Your task to perform on an android device: open app "Truecaller" Image 0: 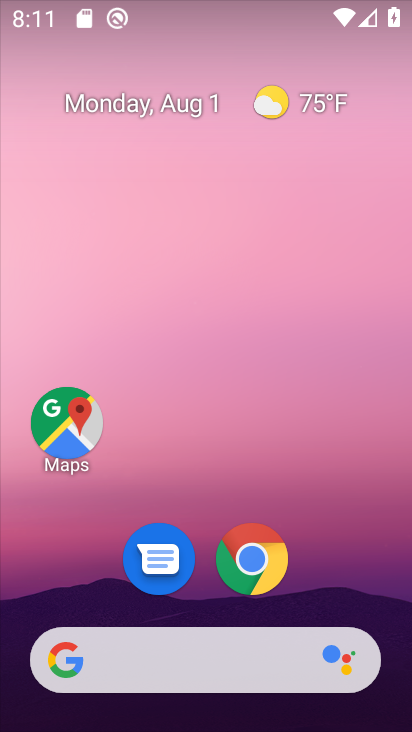
Step 0: drag from (236, 637) to (239, 167)
Your task to perform on an android device: open app "Truecaller" Image 1: 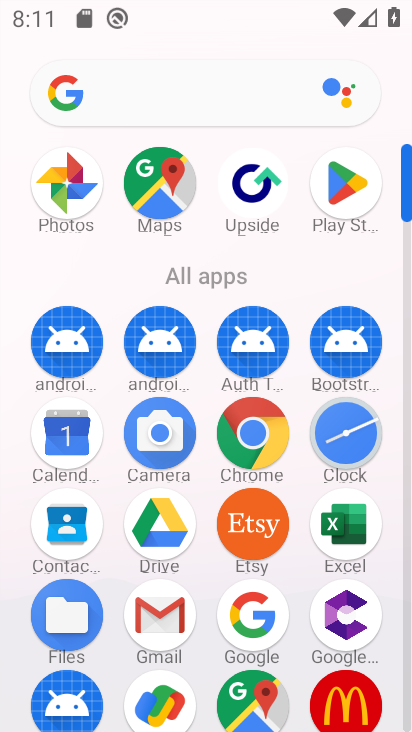
Step 1: click (345, 163)
Your task to perform on an android device: open app "Truecaller" Image 2: 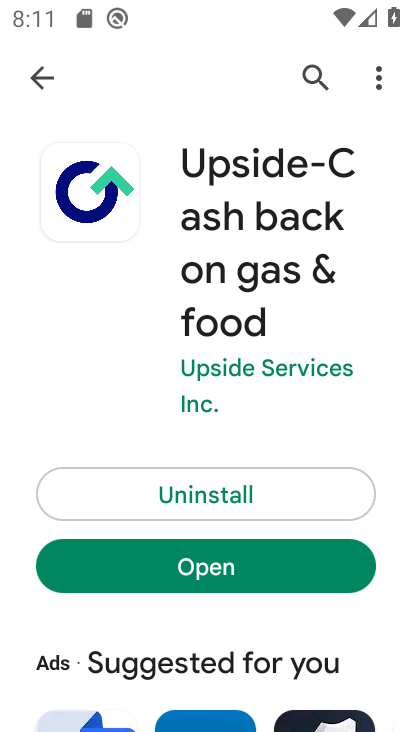
Step 2: click (322, 81)
Your task to perform on an android device: open app "Truecaller" Image 3: 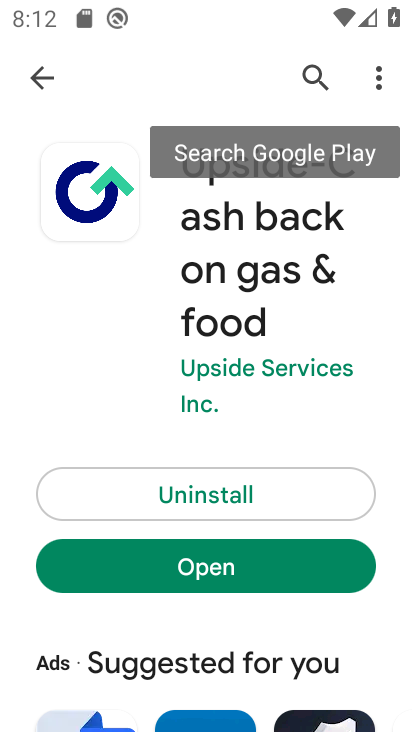
Step 3: click (322, 81)
Your task to perform on an android device: open app "Truecaller" Image 4: 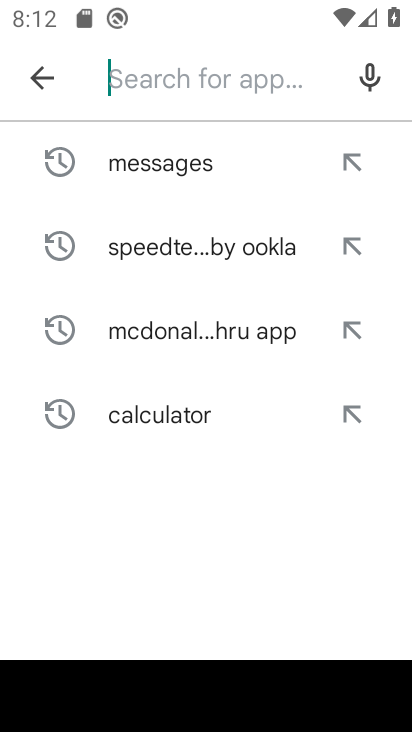
Step 4: type "Truecaller"
Your task to perform on an android device: open app "Truecaller" Image 5: 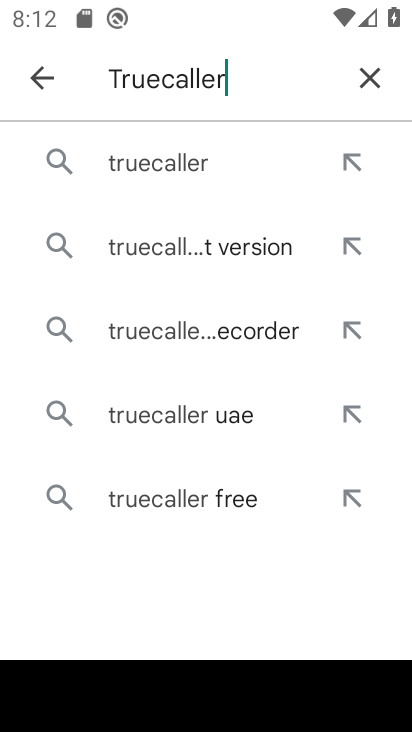
Step 5: click (205, 158)
Your task to perform on an android device: open app "Truecaller" Image 6: 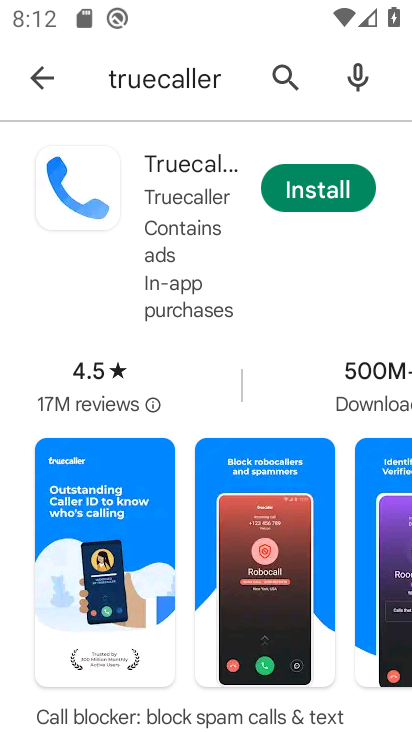
Step 6: task complete